Your task to perform on an android device: open app "PUBG MOBILE" Image 0: 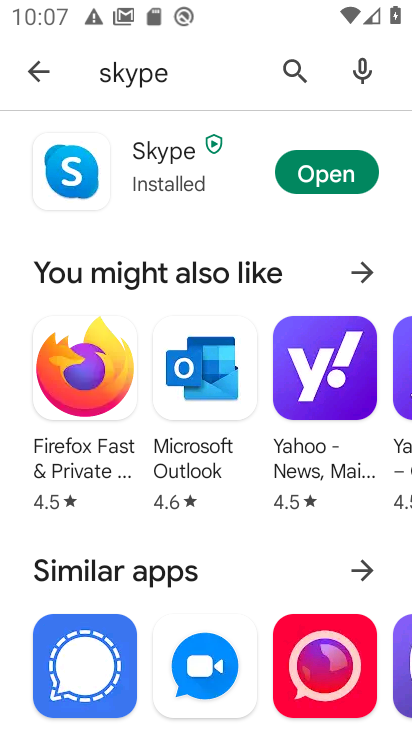
Step 0: press home button
Your task to perform on an android device: open app "PUBG MOBILE" Image 1: 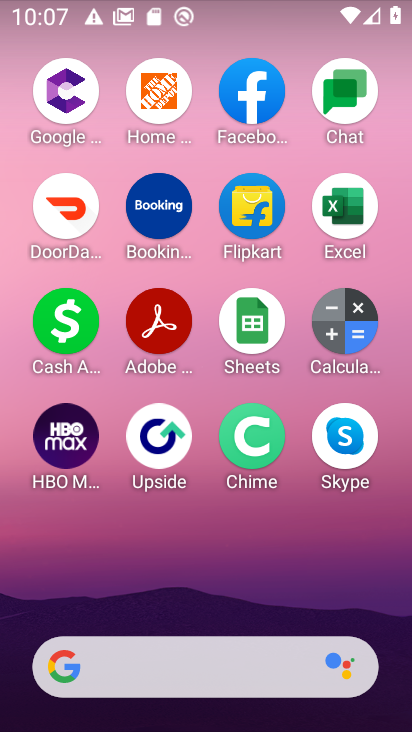
Step 1: drag from (177, 621) to (235, 53)
Your task to perform on an android device: open app "PUBG MOBILE" Image 2: 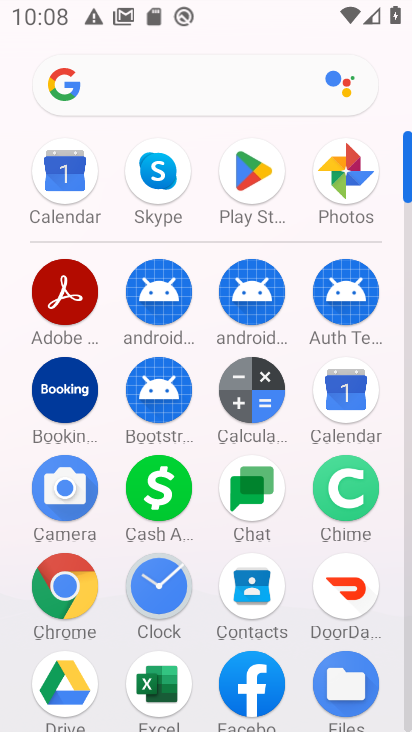
Step 2: click (277, 169)
Your task to perform on an android device: open app "PUBG MOBILE" Image 3: 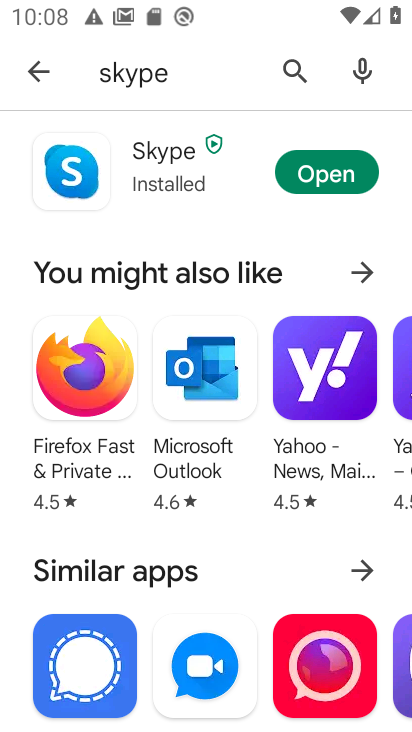
Step 3: click (288, 73)
Your task to perform on an android device: open app "PUBG MOBILE" Image 4: 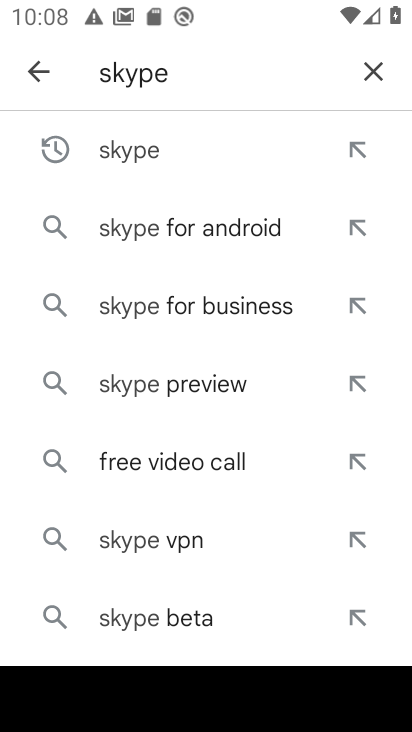
Step 4: click (370, 70)
Your task to perform on an android device: open app "PUBG MOBILE" Image 5: 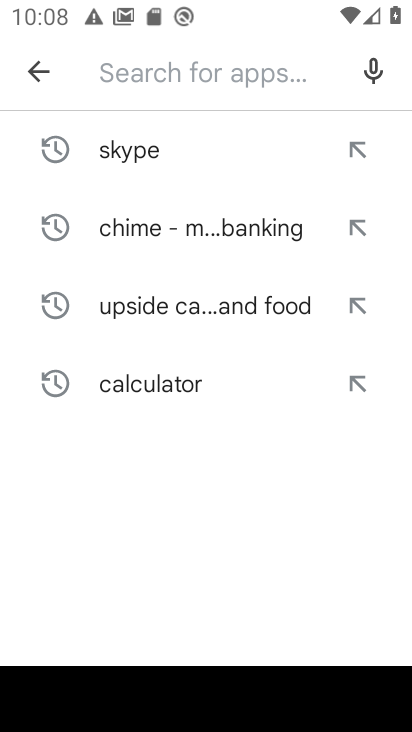
Step 5: type "pubg mobile"
Your task to perform on an android device: open app "PUBG MOBILE" Image 6: 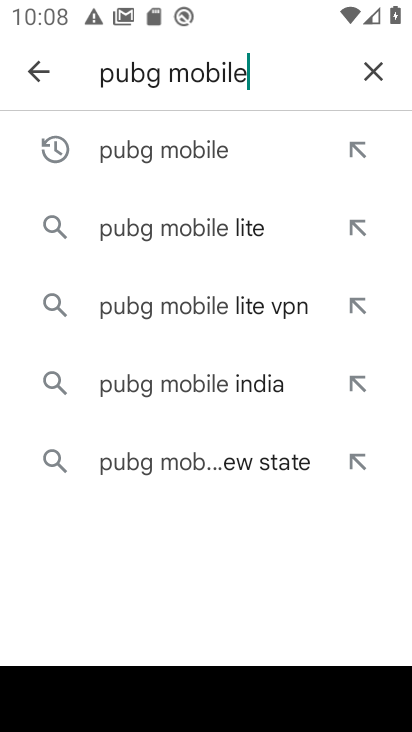
Step 6: click (178, 141)
Your task to perform on an android device: open app "PUBG MOBILE" Image 7: 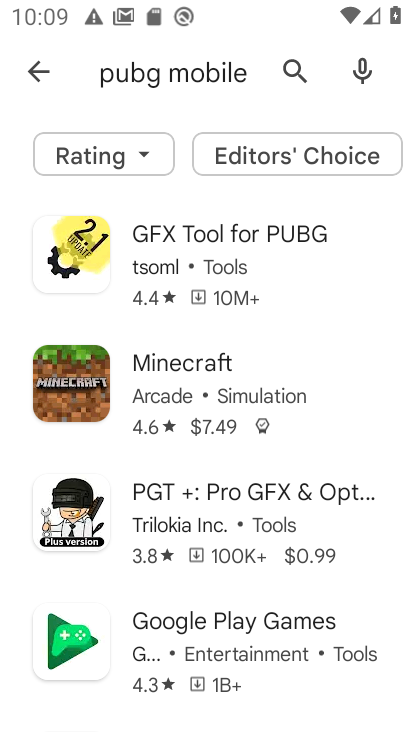
Step 7: task complete